Your task to perform on an android device: set default search engine in the chrome app Image 0: 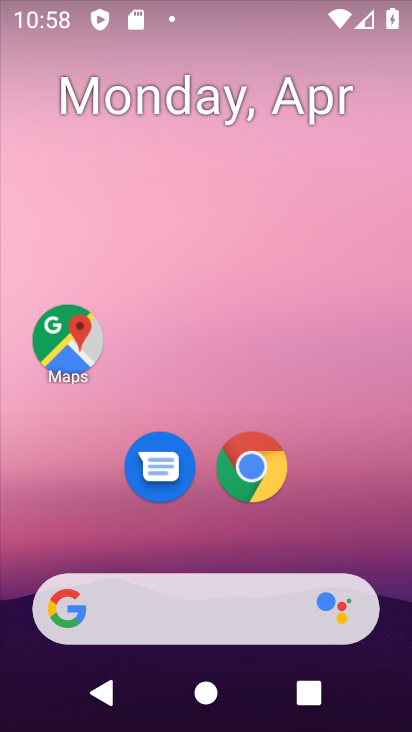
Step 0: click (256, 478)
Your task to perform on an android device: set default search engine in the chrome app Image 1: 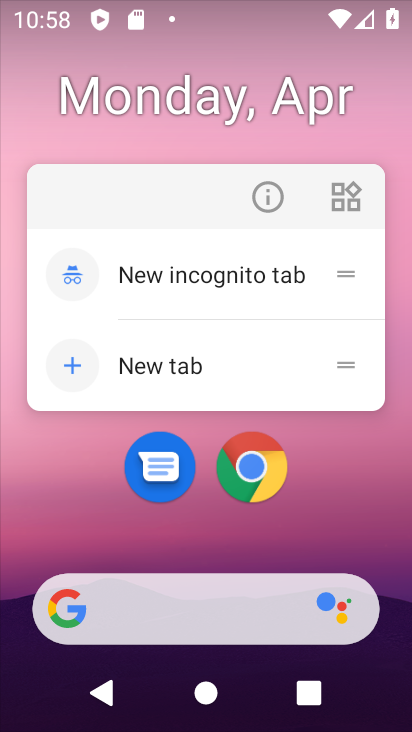
Step 1: click (254, 473)
Your task to perform on an android device: set default search engine in the chrome app Image 2: 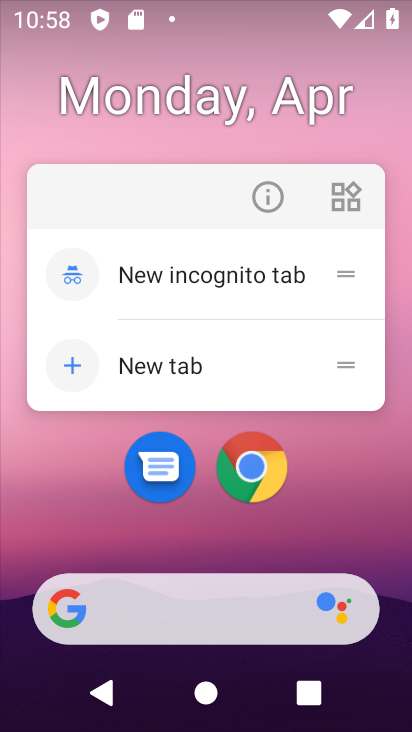
Step 2: click (255, 473)
Your task to perform on an android device: set default search engine in the chrome app Image 3: 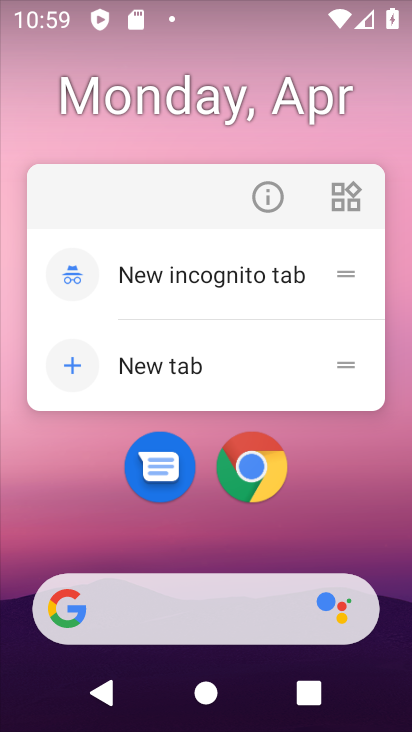
Step 3: click (246, 473)
Your task to perform on an android device: set default search engine in the chrome app Image 4: 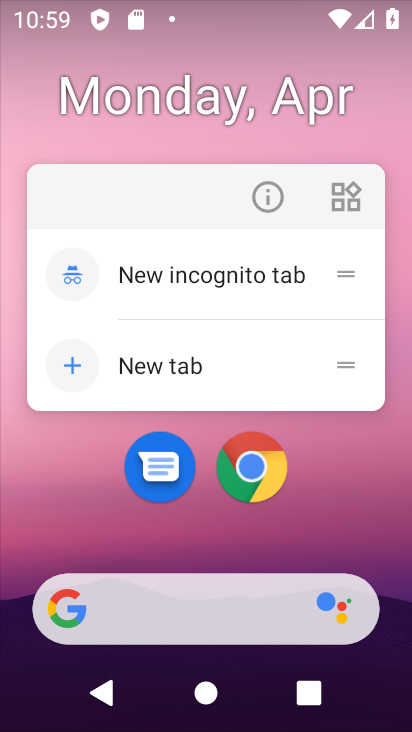
Step 4: click (267, 475)
Your task to perform on an android device: set default search engine in the chrome app Image 5: 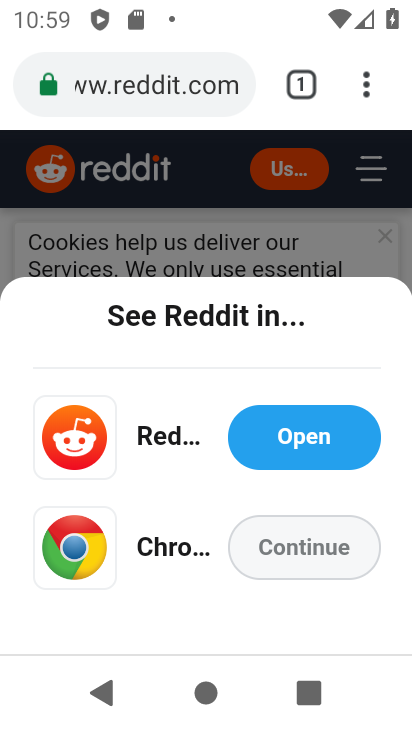
Step 5: drag from (366, 86) to (158, 522)
Your task to perform on an android device: set default search engine in the chrome app Image 6: 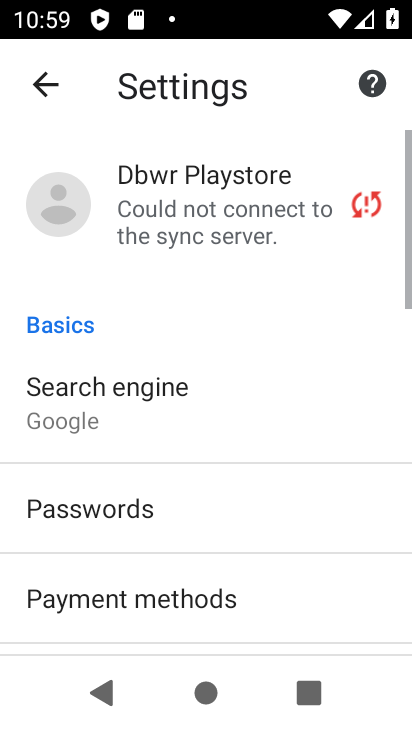
Step 6: click (133, 401)
Your task to perform on an android device: set default search engine in the chrome app Image 7: 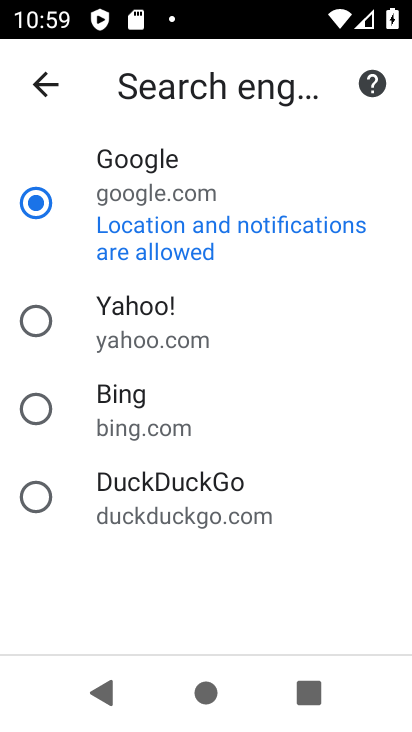
Step 7: click (182, 343)
Your task to perform on an android device: set default search engine in the chrome app Image 8: 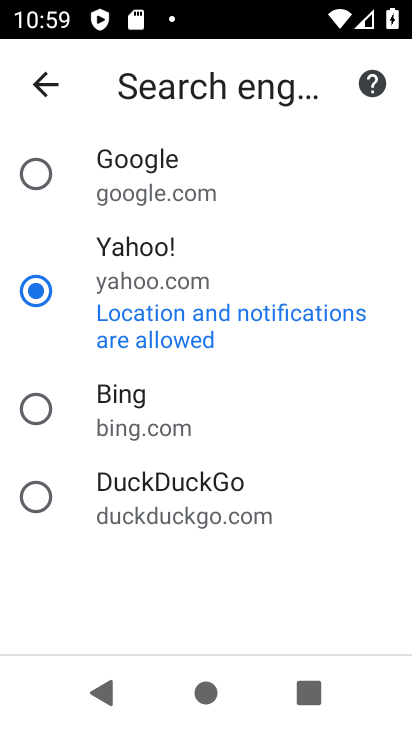
Step 8: task complete